Your task to perform on an android device: What's the news in Malaysia? Image 0: 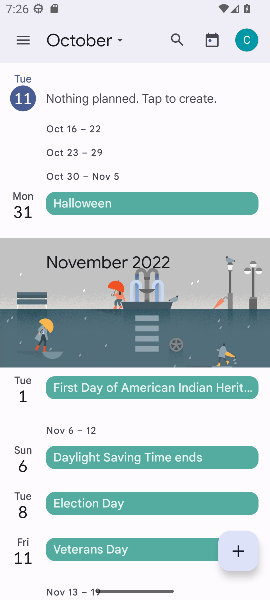
Step 0: press home button
Your task to perform on an android device: What's the news in Malaysia? Image 1: 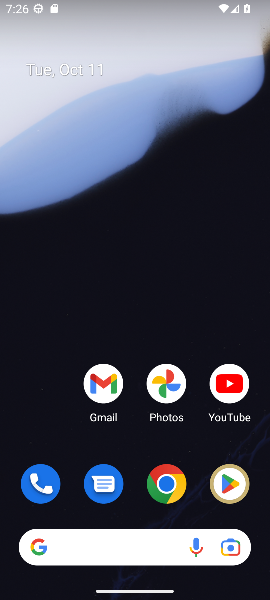
Step 1: drag from (171, 494) to (267, 40)
Your task to perform on an android device: What's the news in Malaysia? Image 2: 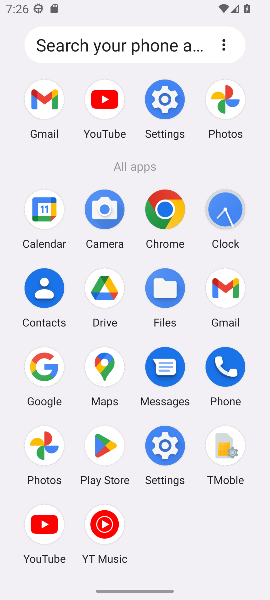
Step 2: click (167, 189)
Your task to perform on an android device: What's the news in Malaysia? Image 3: 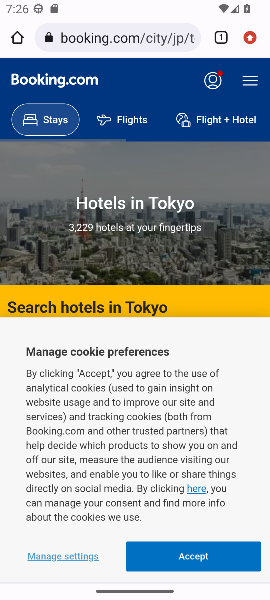
Step 3: click (142, 37)
Your task to perform on an android device: What's the news in Malaysia? Image 4: 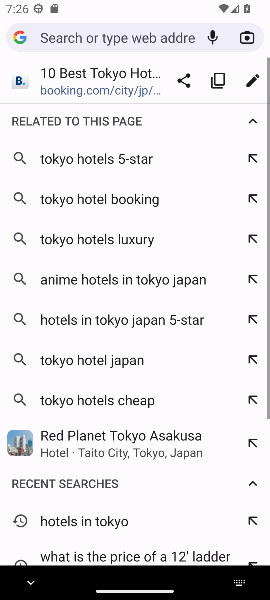
Step 4: type "What's the news in Malaysia?"
Your task to perform on an android device: What's the news in Malaysia? Image 5: 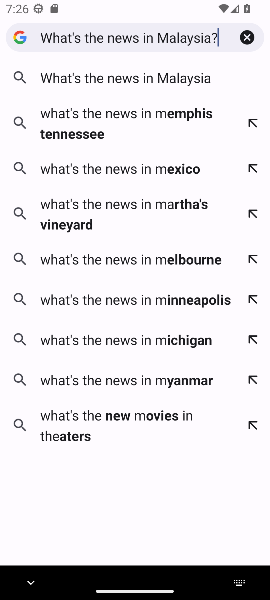
Step 5: press enter
Your task to perform on an android device: What's the news in Malaysia? Image 6: 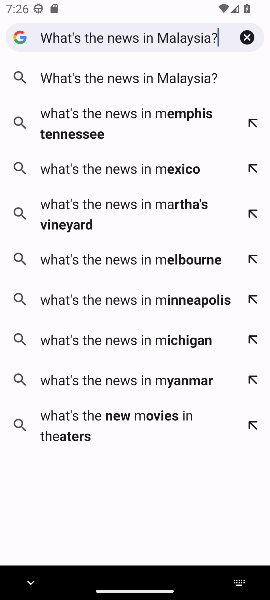
Step 6: click (135, 47)
Your task to perform on an android device: What's the news in Malaysia? Image 7: 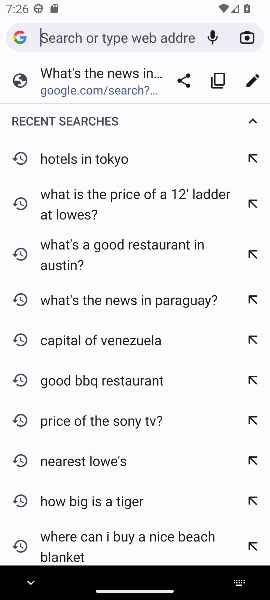
Step 7: type "What's the news in Malaysia?"
Your task to perform on an android device: What's the news in Malaysia? Image 8: 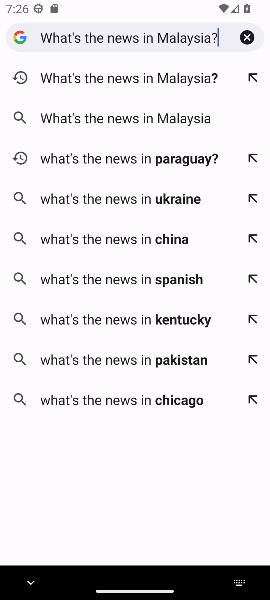
Step 8: press enter
Your task to perform on an android device: What's the news in Malaysia? Image 9: 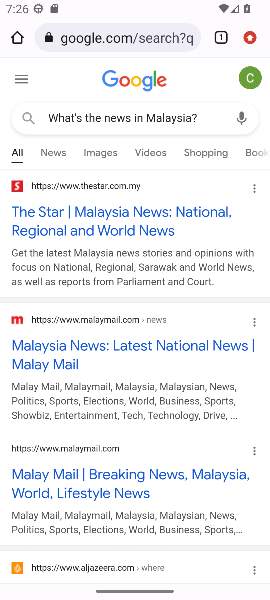
Step 9: click (107, 215)
Your task to perform on an android device: What's the news in Malaysia? Image 10: 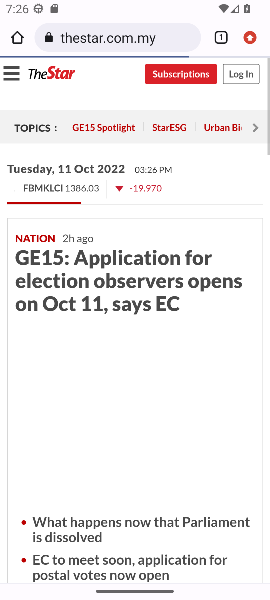
Step 10: task complete